Your task to perform on an android device: change the clock display to digital Image 0: 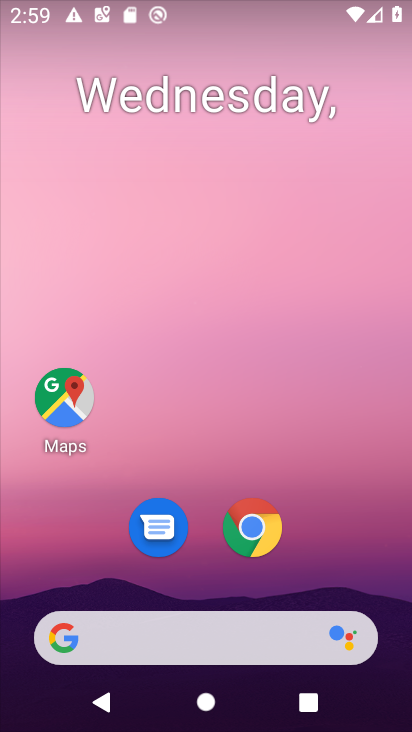
Step 0: drag from (339, 521) to (230, 148)
Your task to perform on an android device: change the clock display to digital Image 1: 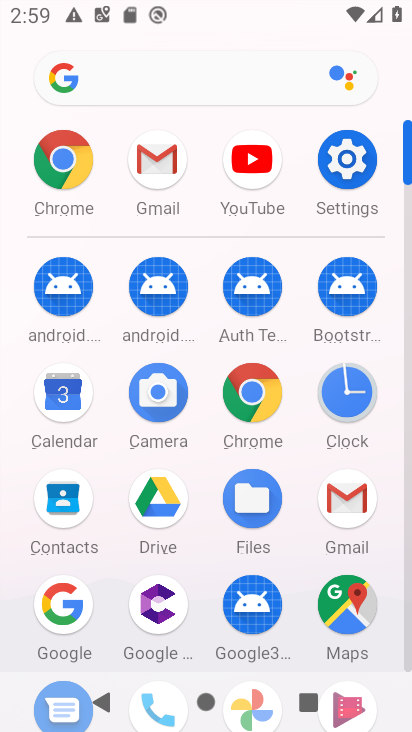
Step 1: click (344, 380)
Your task to perform on an android device: change the clock display to digital Image 2: 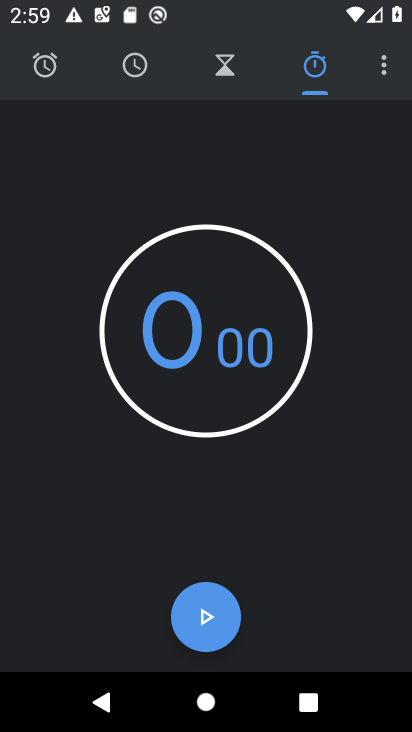
Step 2: click (386, 64)
Your task to perform on an android device: change the clock display to digital Image 3: 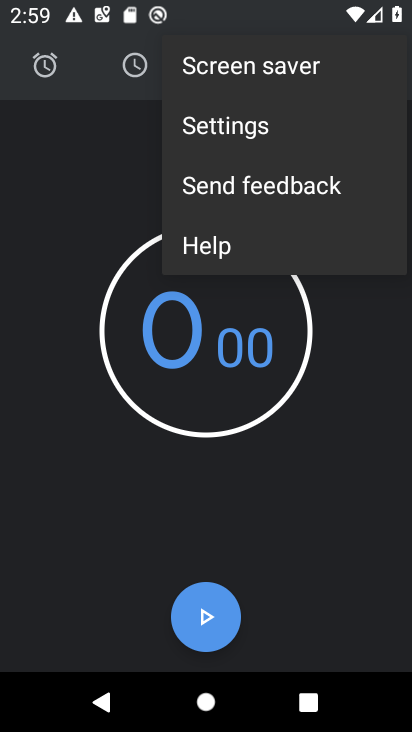
Step 3: click (251, 121)
Your task to perform on an android device: change the clock display to digital Image 4: 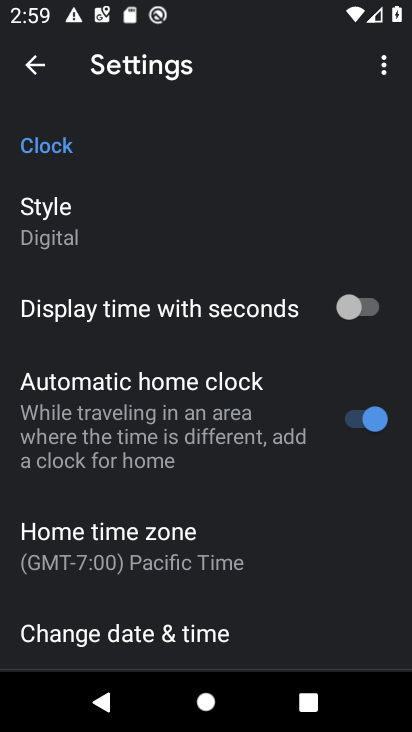
Step 4: task complete